Your task to perform on an android device: turn off picture-in-picture Image 0: 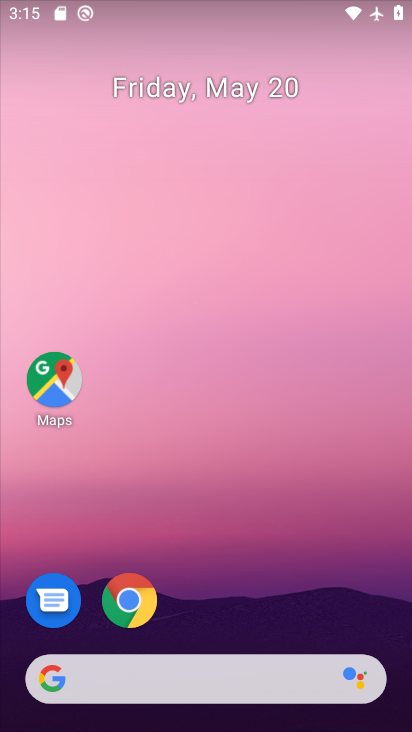
Step 0: drag from (299, 543) to (178, 46)
Your task to perform on an android device: turn off picture-in-picture Image 1: 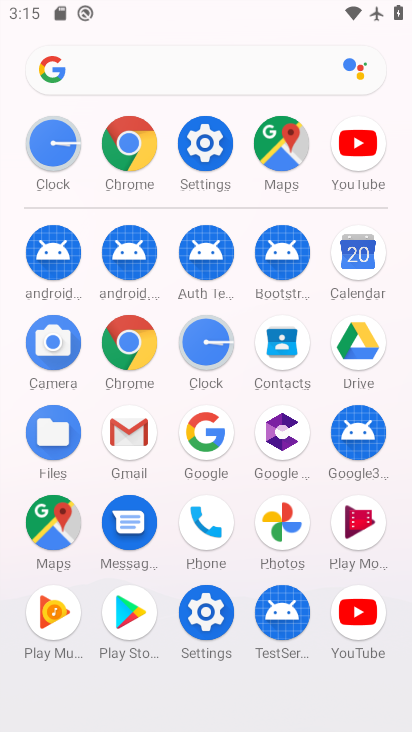
Step 1: click (203, 162)
Your task to perform on an android device: turn off picture-in-picture Image 2: 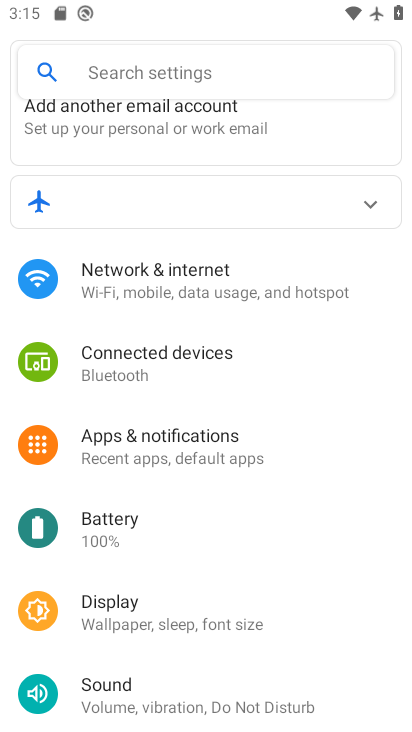
Step 2: click (226, 464)
Your task to perform on an android device: turn off picture-in-picture Image 3: 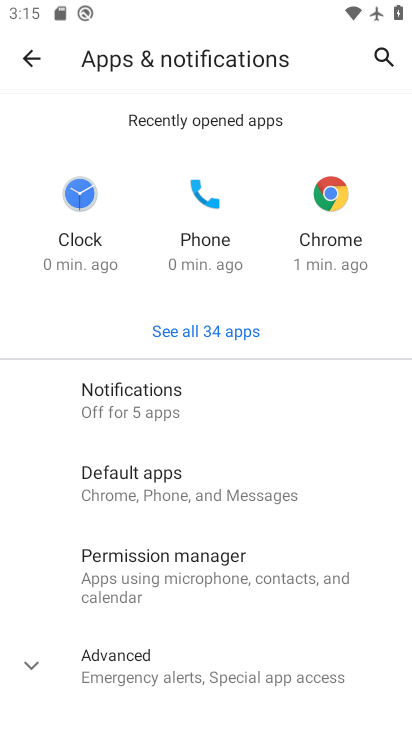
Step 3: drag from (280, 617) to (286, 228)
Your task to perform on an android device: turn off picture-in-picture Image 4: 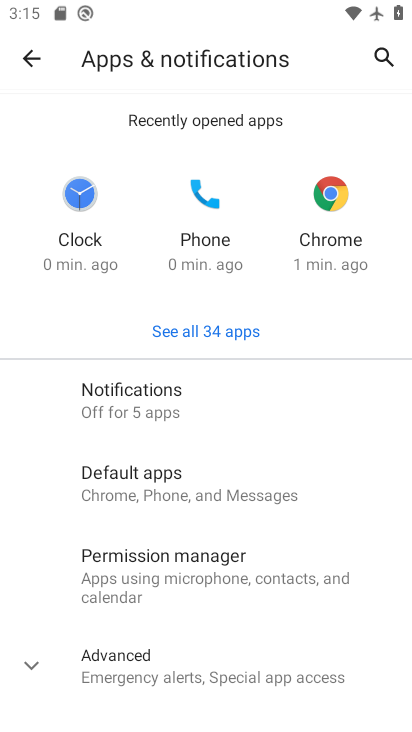
Step 4: click (213, 641)
Your task to perform on an android device: turn off picture-in-picture Image 5: 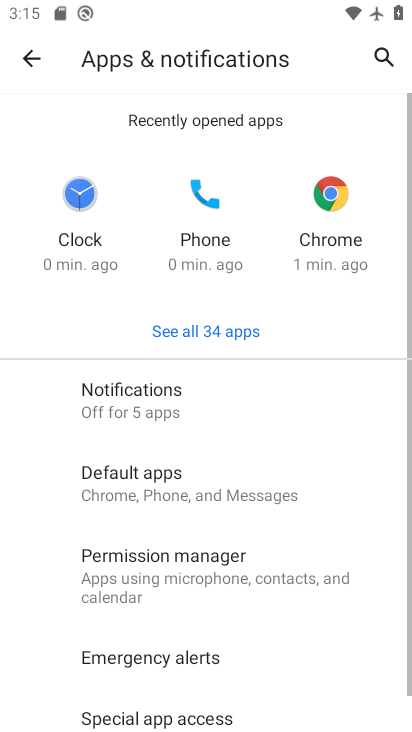
Step 5: drag from (282, 657) to (258, 327)
Your task to perform on an android device: turn off picture-in-picture Image 6: 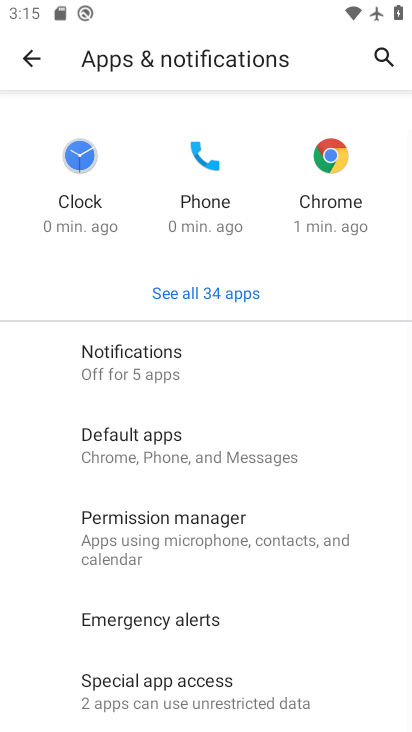
Step 6: click (214, 680)
Your task to perform on an android device: turn off picture-in-picture Image 7: 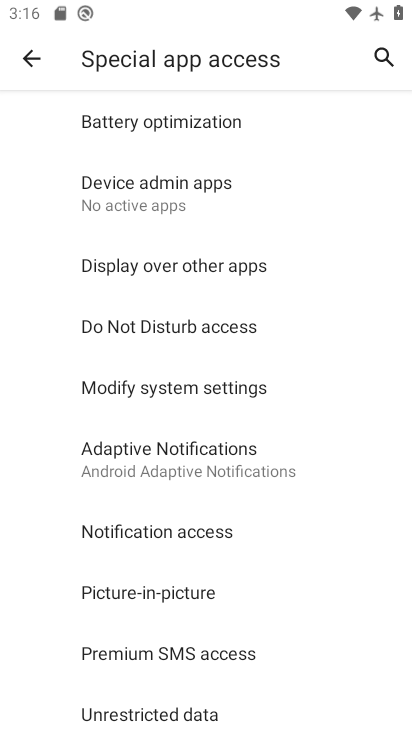
Step 7: click (182, 599)
Your task to perform on an android device: turn off picture-in-picture Image 8: 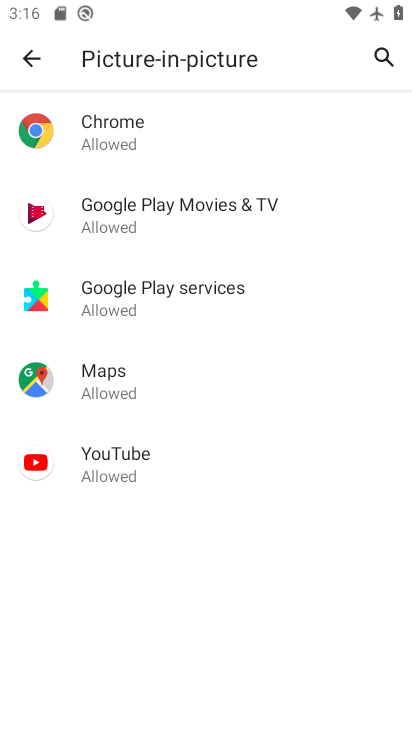
Step 8: click (314, 299)
Your task to perform on an android device: turn off picture-in-picture Image 9: 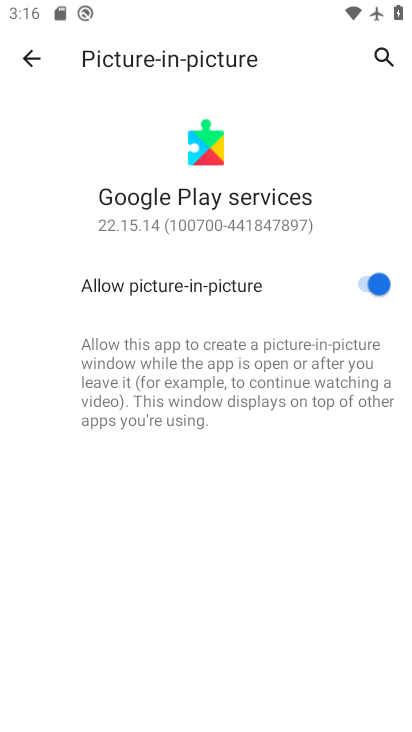
Step 9: click (353, 295)
Your task to perform on an android device: turn off picture-in-picture Image 10: 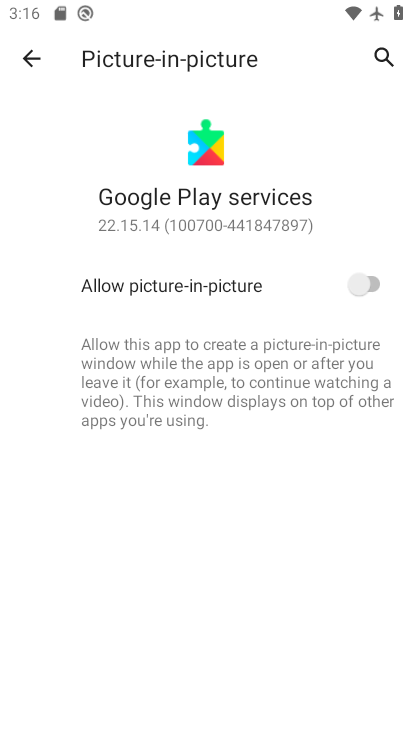
Step 10: task complete